Your task to perform on an android device: snooze an email in the gmail app Image 0: 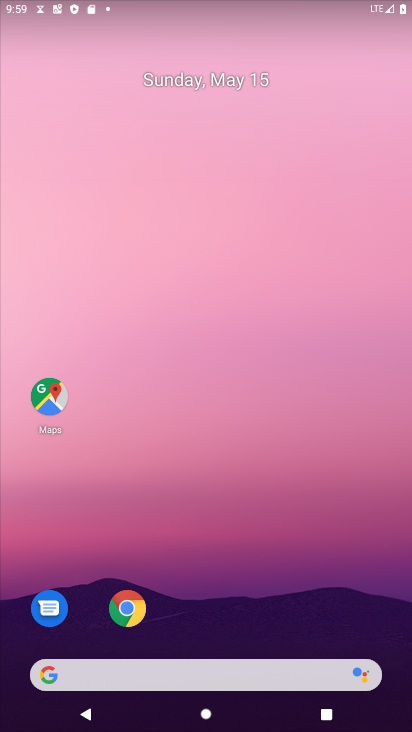
Step 0: drag from (250, 610) to (210, 129)
Your task to perform on an android device: snooze an email in the gmail app Image 1: 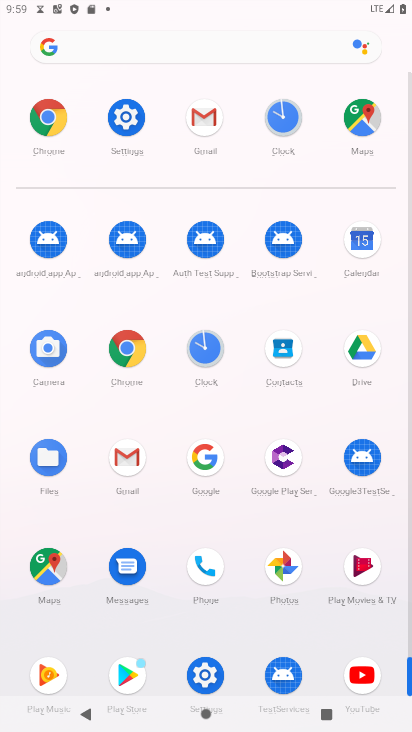
Step 1: click (199, 124)
Your task to perform on an android device: snooze an email in the gmail app Image 2: 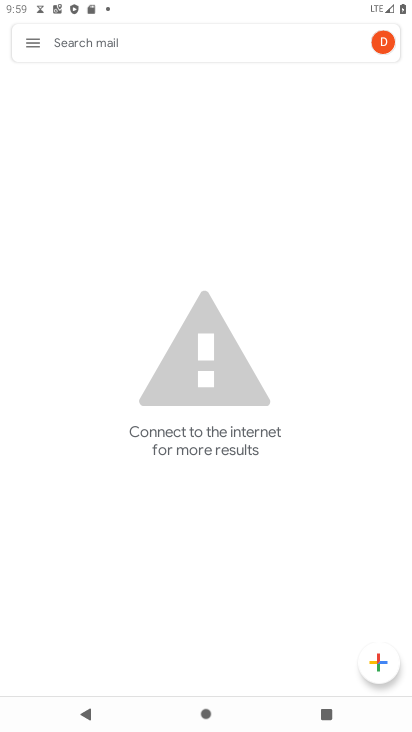
Step 2: click (31, 36)
Your task to perform on an android device: snooze an email in the gmail app Image 3: 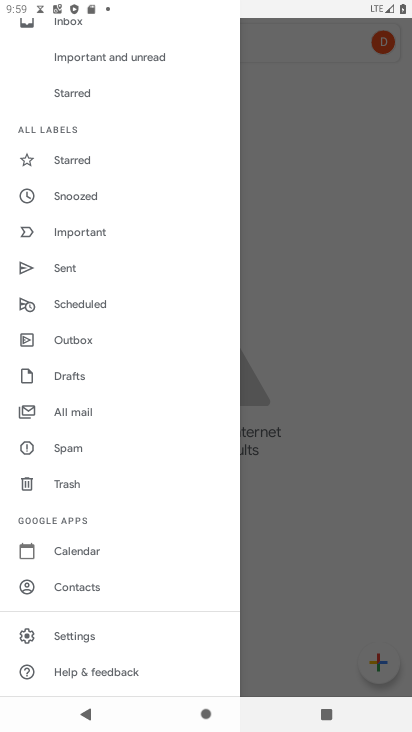
Step 3: click (65, 411)
Your task to perform on an android device: snooze an email in the gmail app Image 4: 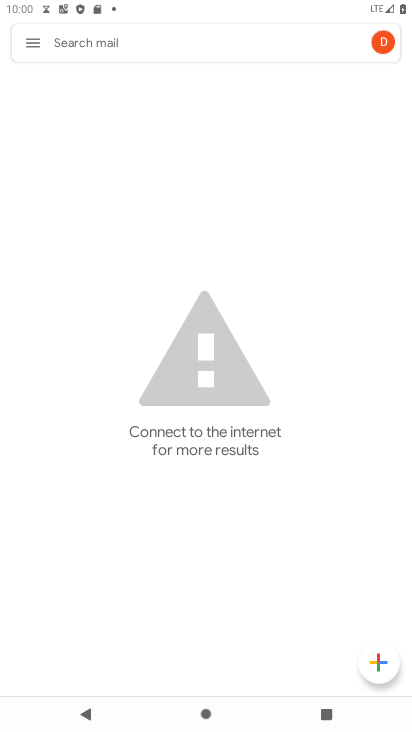
Step 4: click (45, 36)
Your task to perform on an android device: snooze an email in the gmail app Image 5: 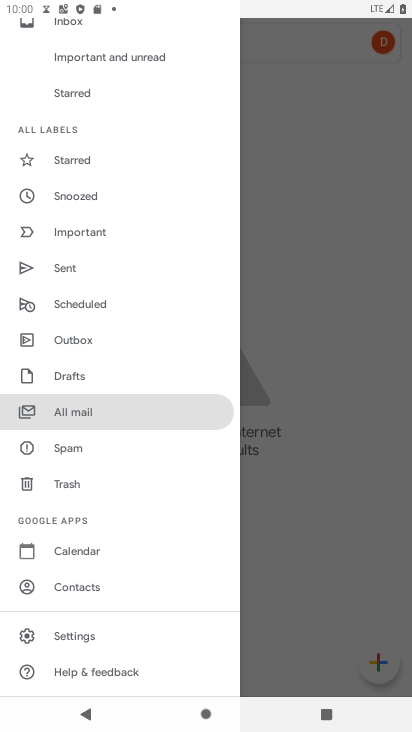
Step 5: click (77, 414)
Your task to perform on an android device: snooze an email in the gmail app Image 6: 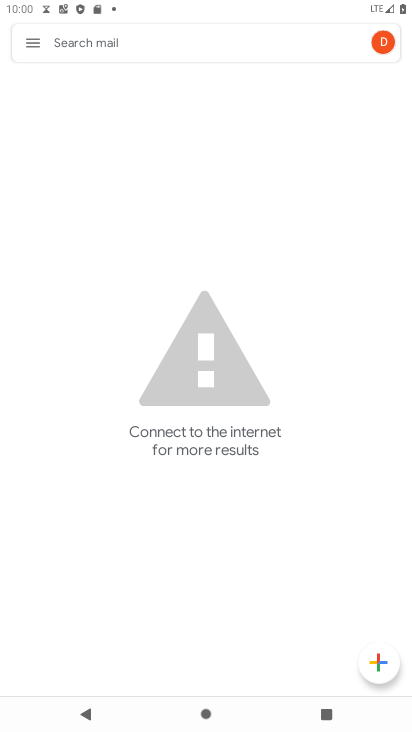
Step 6: task complete